Your task to perform on an android device: Go to display settings Image 0: 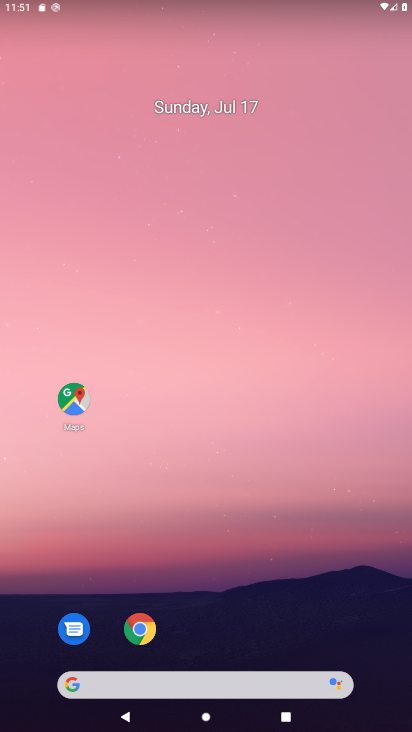
Step 0: drag from (192, 653) to (249, 134)
Your task to perform on an android device: Go to display settings Image 1: 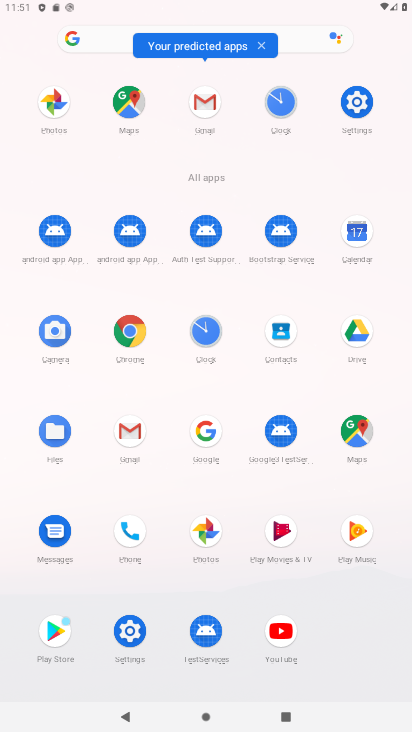
Step 1: click (144, 626)
Your task to perform on an android device: Go to display settings Image 2: 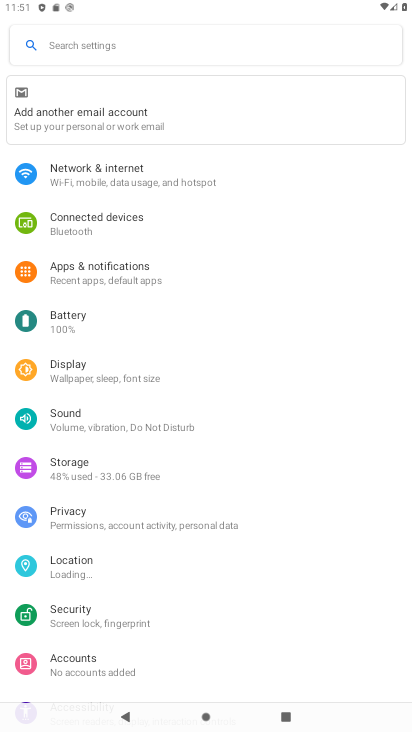
Step 2: click (113, 378)
Your task to perform on an android device: Go to display settings Image 3: 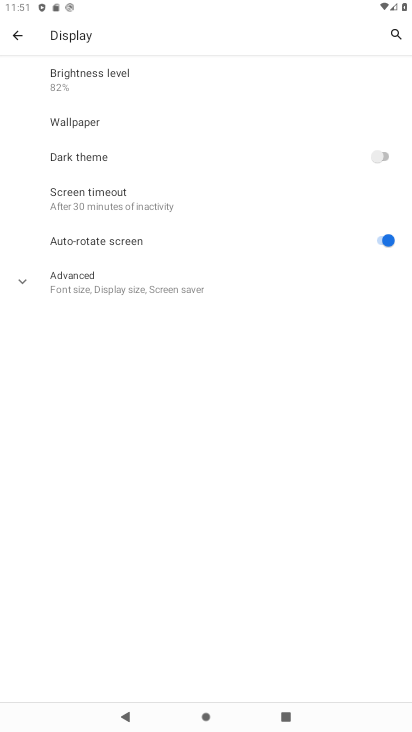
Step 3: task complete